Your task to perform on an android device: What's on my calendar today? Image 0: 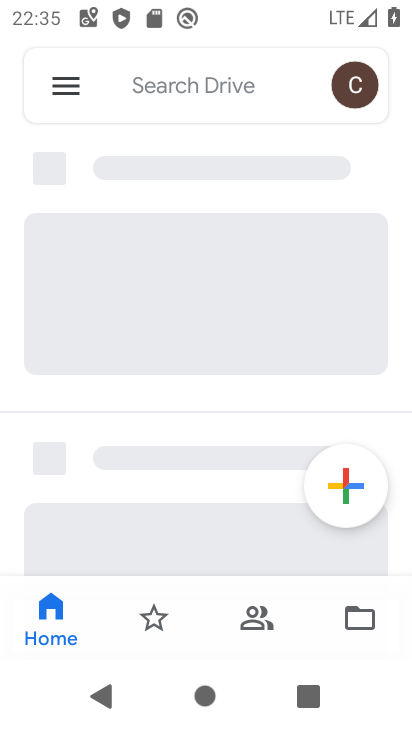
Step 0: press back button
Your task to perform on an android device: What's on my calendar today? Image 1: 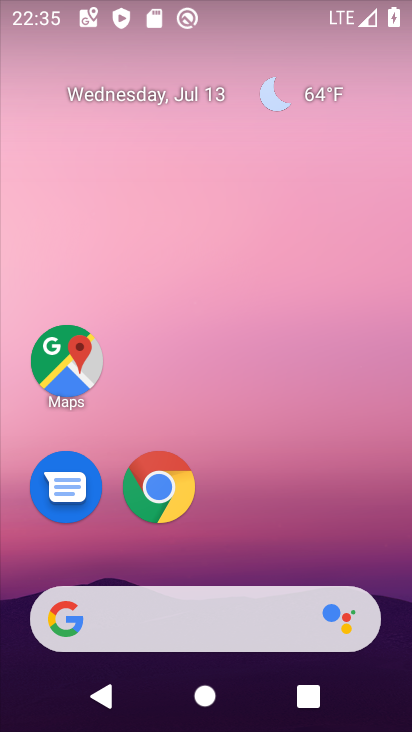
Step 1: drag from (273, 190) to (263, 14)
Your task to perform on an android device: What's on my calendar today? Image 2: 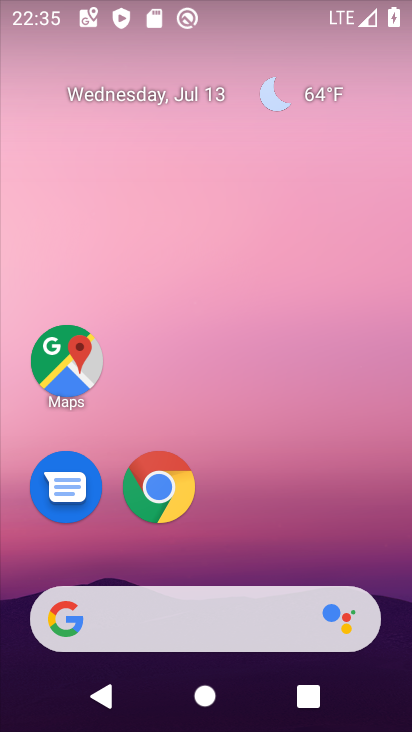
Step 2: drag from (293, 543) to (351, 25)
Your task to perform on an android device: What's on my calendar today? Image 3: 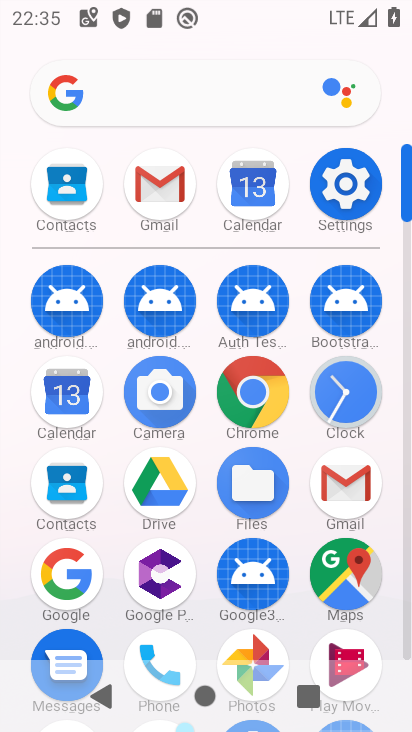
Step 3: click (59, 405)
Your task to perform on an android device: What's on my calendar today? Image 4: 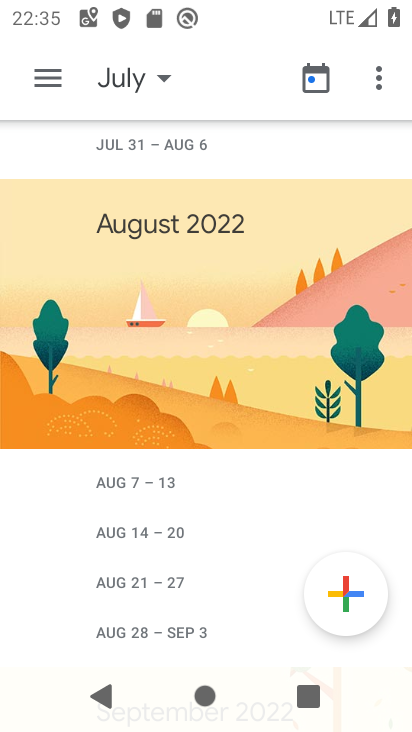
Step 4: drag from (174, 592) to (223, 367)
Your task to perform on an android device: What's on my calendar today? Image 5: 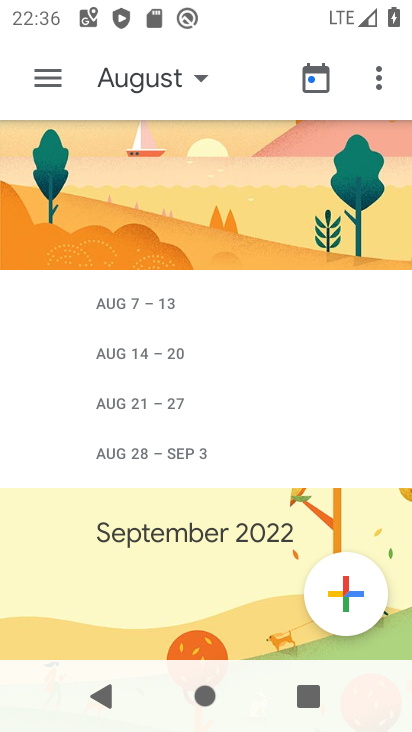
Step 5: drag from (223, 367) to (179, 585)
Your task to perform on an android device: What's on my calendar today? Image 6: 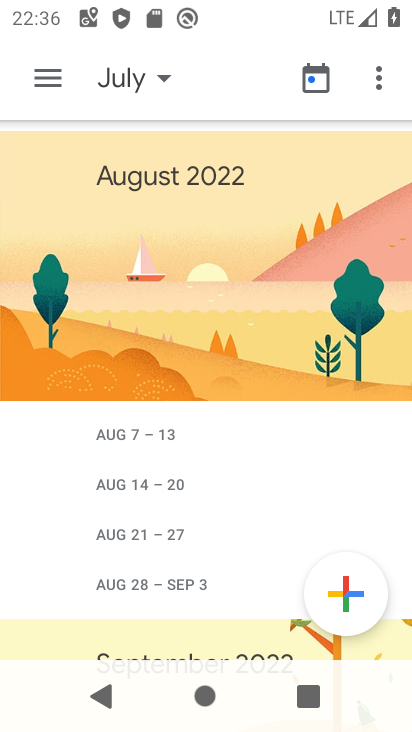
Step 6: click (135, 77)
Your task to perform on an android device: What's on my calendar today? Image 7: 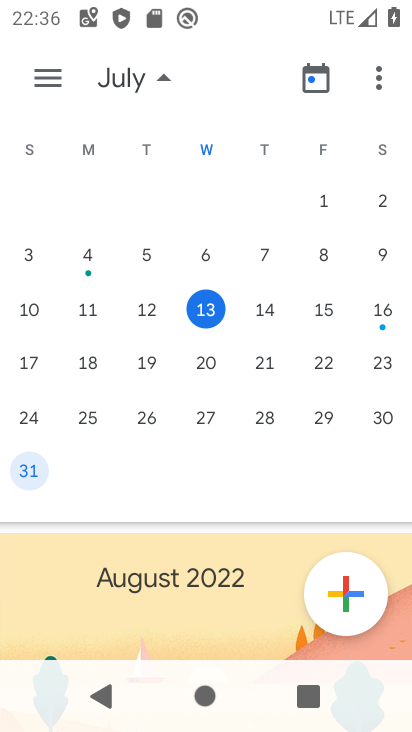
Step 7: click (199, 310)
Your task to perform on an android device: What's on my calendar today? Image 8: 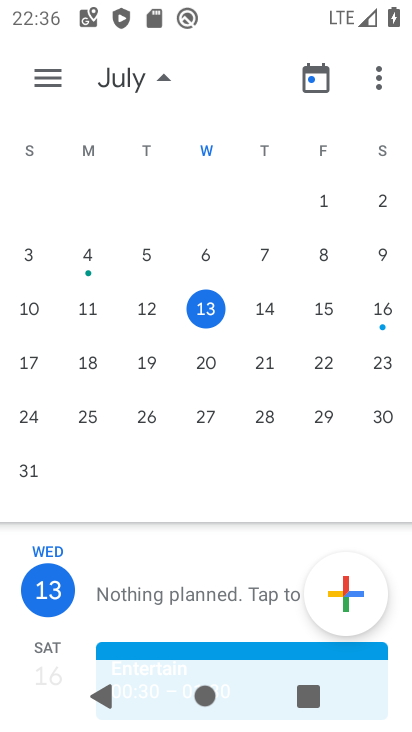
Step 8: task complete